Your task to perform on an android device: Open calendar and show me the third week of next month Image 0: 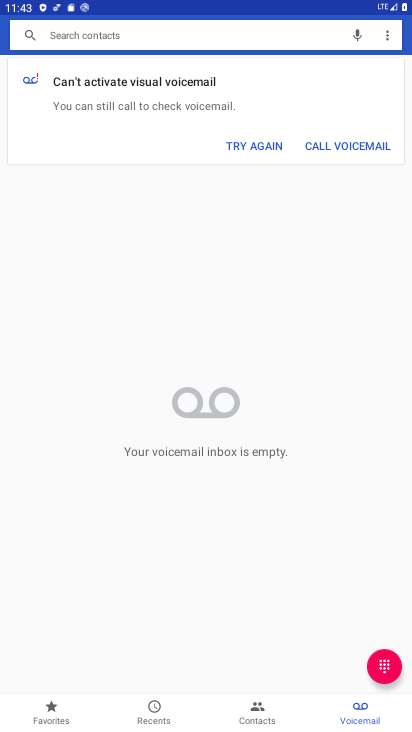
Step 0: press home button
Your task to perform on an android device: Open calendar and show me the third week of next month Image 1: 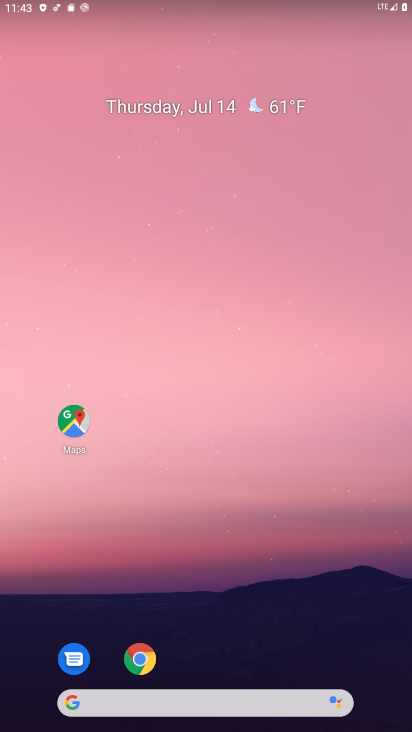
Step 1: drag from (184, 699) to (215, 90)
Your task to perform on an android device: Open calendar and show me the third week of next month Image 2: 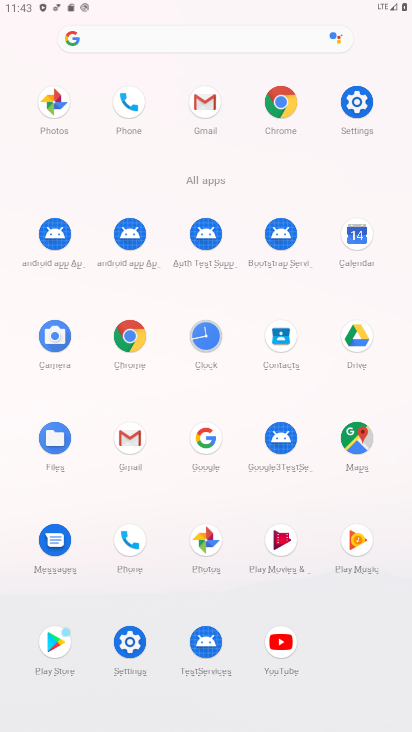
Step 2: click (356, 236)
Your task to perform on an android device: Open calendar and show me the third week of next month Image 3: 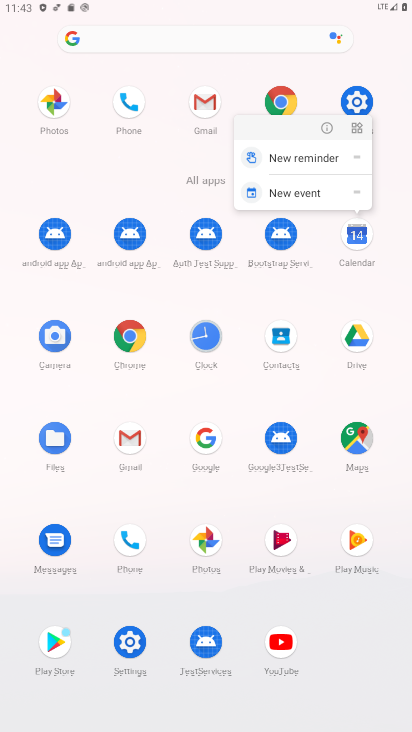
Step 3: click (356, 236)
Your task to perform on an android device: Open calendar and show me the third week of next month Image 4: 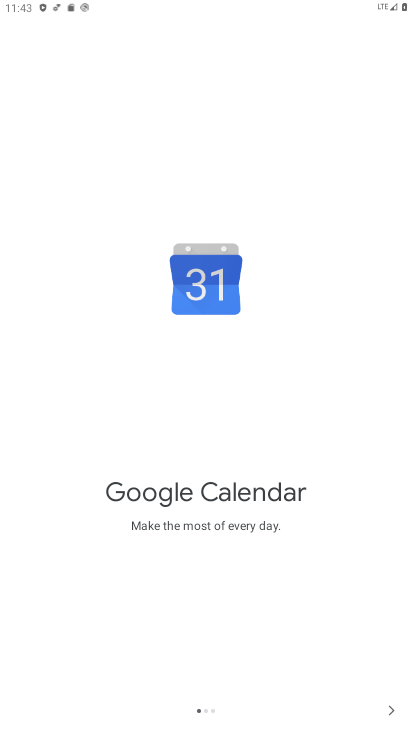
Step 4: click (389, 711)
Your task to perform on an android device: Open calendar and show me the third week of next month Image 5: 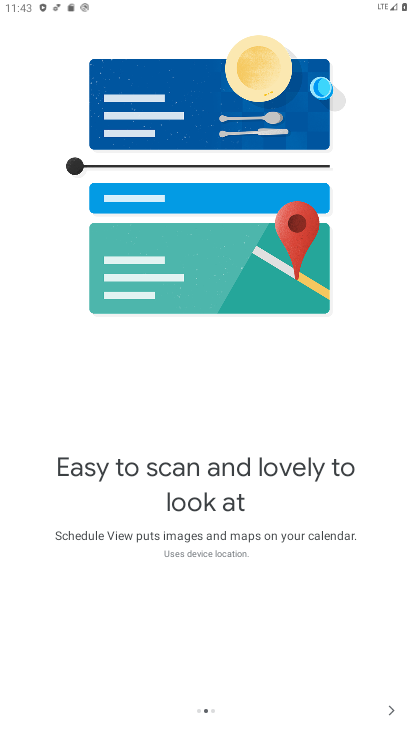
Step 5: click (389, 711)
Your task to perform on an android device: Open calendar and show me the third week of next month Image 6: 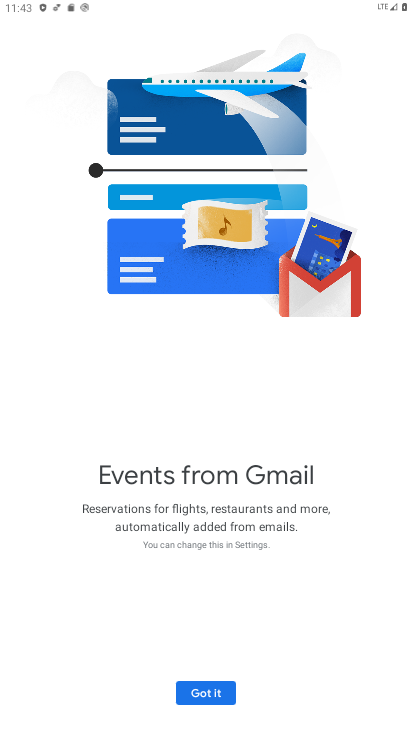
Step 6: click (212, 696)
Your task to perform on an android device: Open calendar and show me the third week of next month Image 7: 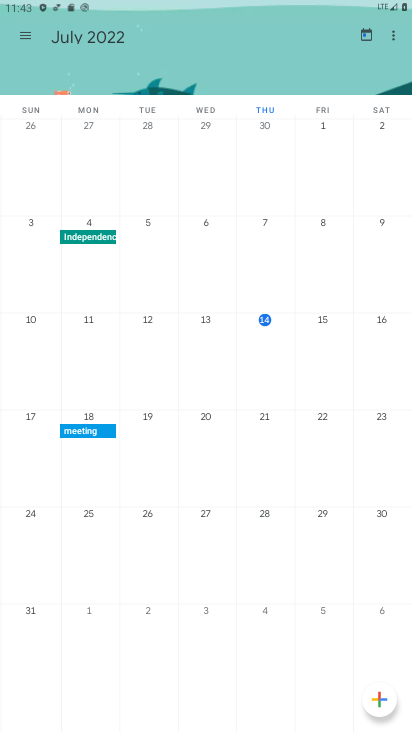
Step 7: drag from (381, 441) to (5, 416)
Your task to perform on an android device: Open calendar and show me the third week of next month Image 8: 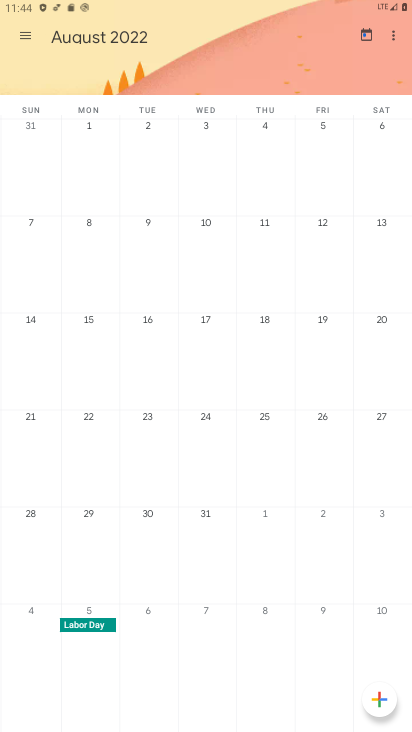
Step 8: click (91, 327)
Your task to perform on an android device: Open calendar and show me the third week of next month Image 9: 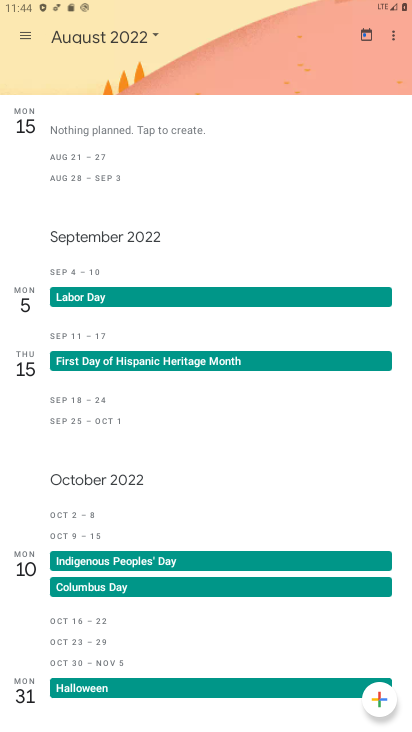
Step 9: click (29, 39)
Your task to perform on an android device: Open calendar and show me the third week of next month Image 10: 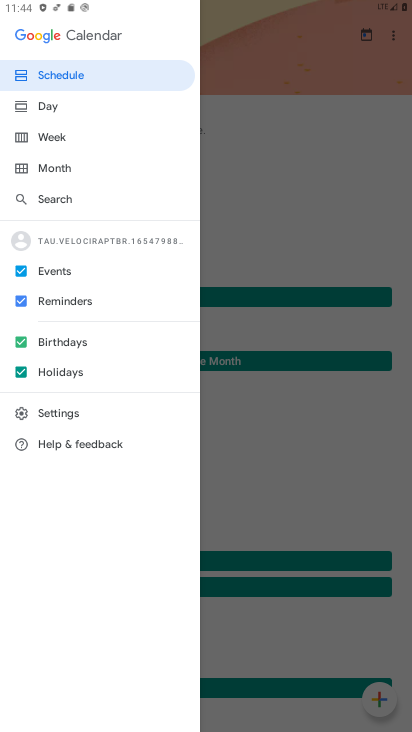
Step 10: click (55, 137)
Your task to perform on an android device: Open calendar and show me the third week of next month Image 11: 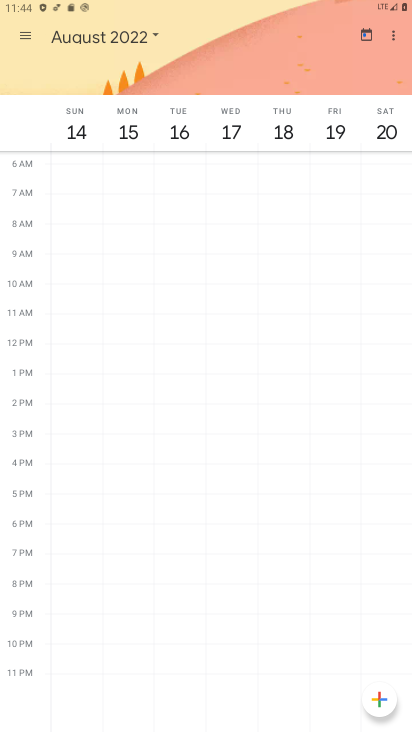
Step 11: task complete